Your task to perform on an android device: create a new album in the google photos Image 0: 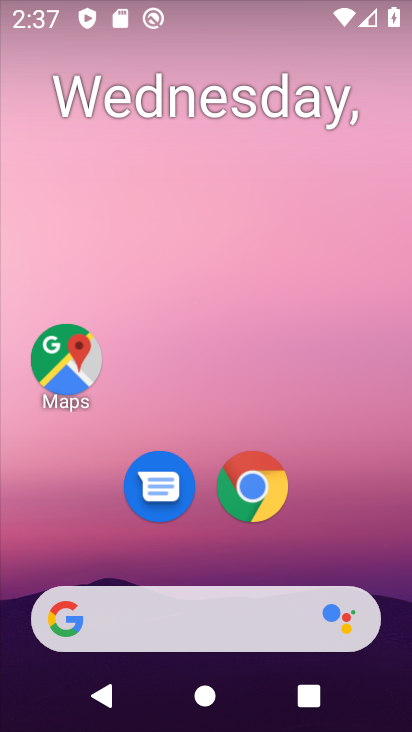
Step 0: drag from (217, 594) to (150, 66)
Your task to perform on an android device: create a new album in the google photos Image 1: 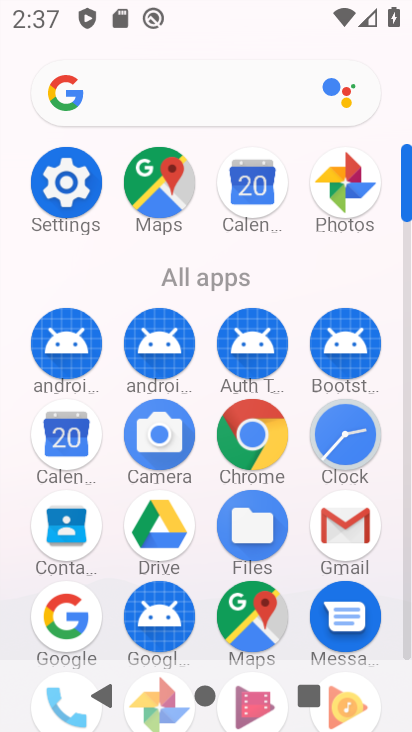
Step 1: drag from (209, 649) to (209, 153)
Your task to perform on an android device: create a new album in the google photos Image 2: 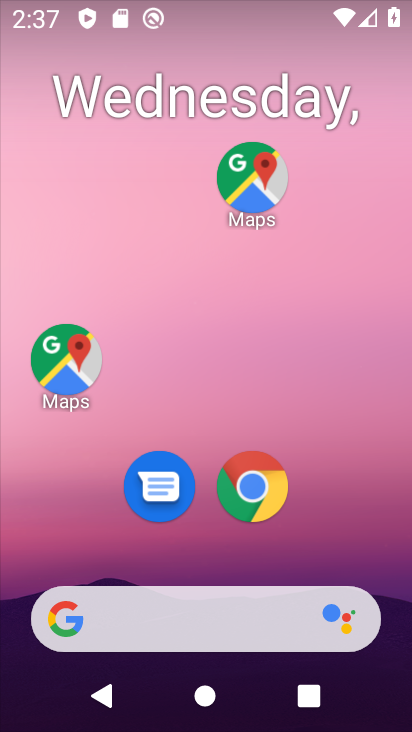
Step 2: drag from (211, 567) to (187, 18)
Your task to perform on an android device: create a new album in the google photos Image 3: 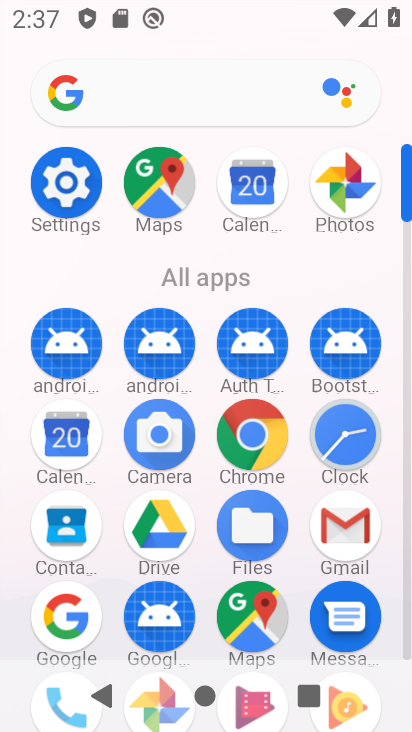
Step 3: click (337, 178)
Your task to perform on an android device: create a new album in the google photos Image 4: 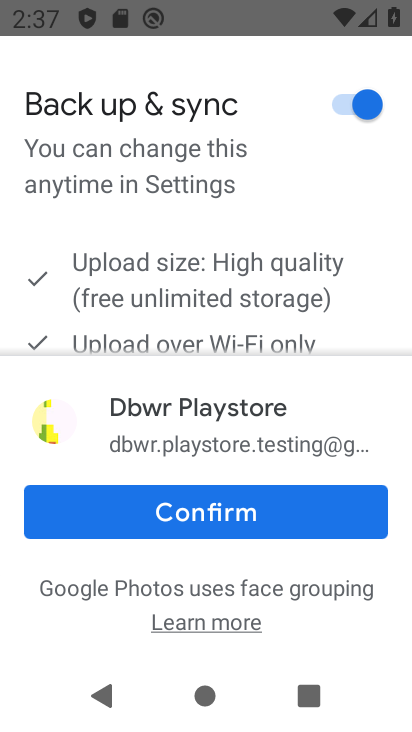
Step 4: click (337, 178)
Your task to perform on an android device: create a new album in the google photos Image 5: 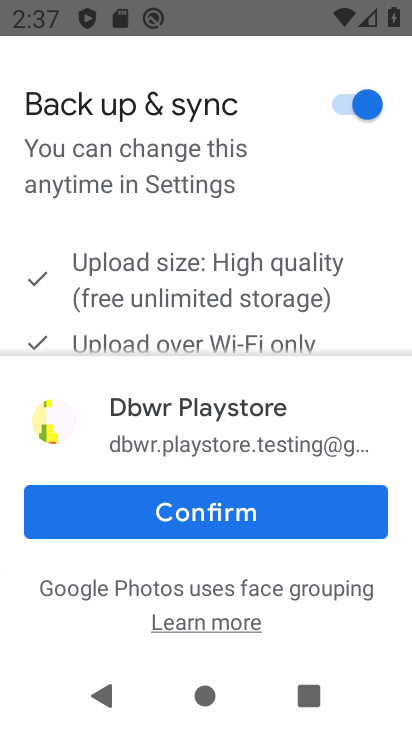
Step 5: click (231, 496)
Your task to perform on an android device: create a new album in the google photos Image 6: 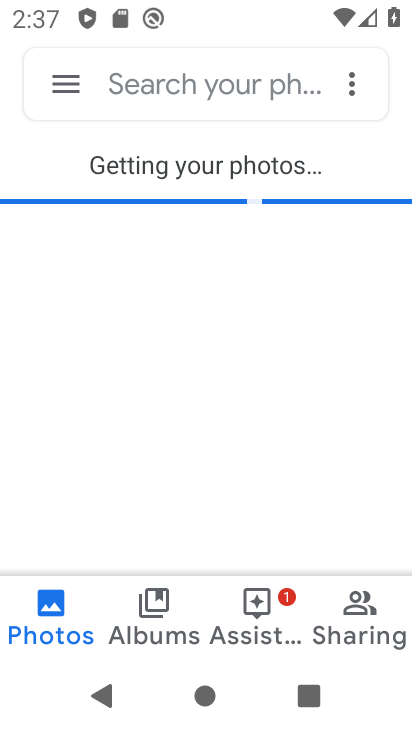
Step 6: click (169, 576)
Your task to perform on an android device: create a new album in the google photos Image 7: 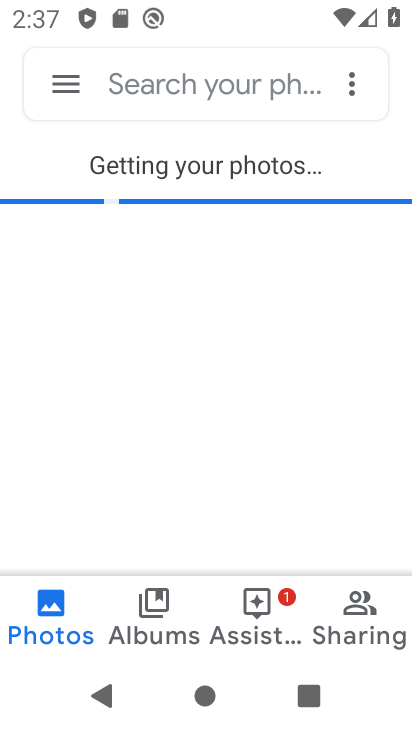
Step 7: click (166, 617)
Your task to perform on an android device: create a new album in the google photos Image 8: 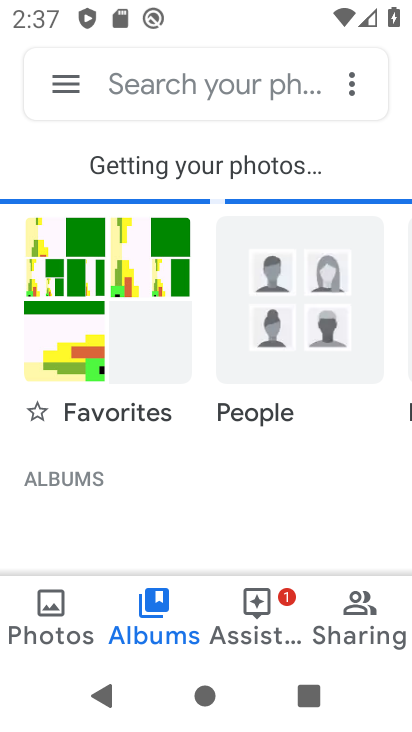
Step 8: click (250, 601)
Your task to perform on an android device: create a new album in the google photos Image 9: 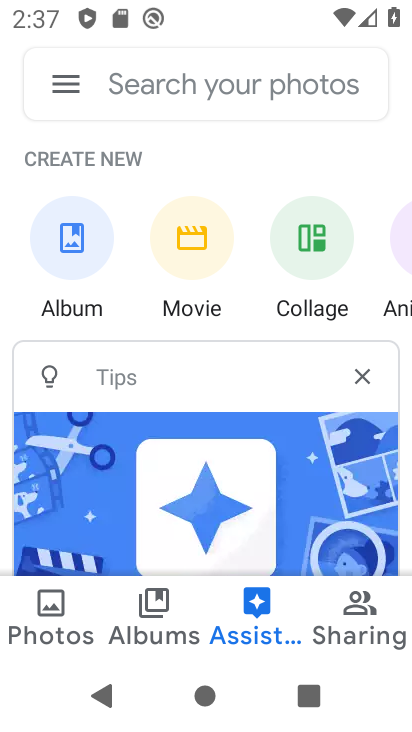
Step 9: click (32, 613)
Your task to perform on an android device: create a new album in the google photos Image 10: 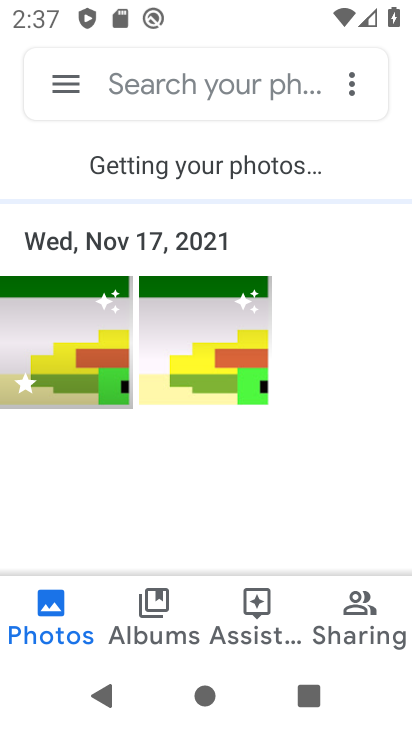
Step 10: click (76, 359)
Your task to perform on an android device: create a new album in the google photos Image 11: 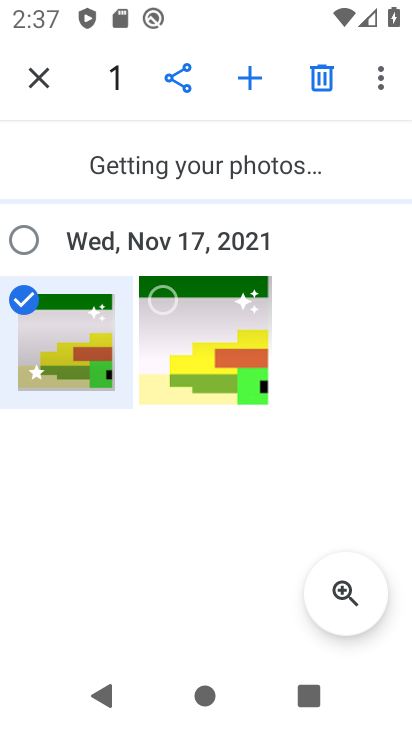
Step 11: click (248, 74)
Your task to perform on an android device: create a new album in the google photos Image 12: 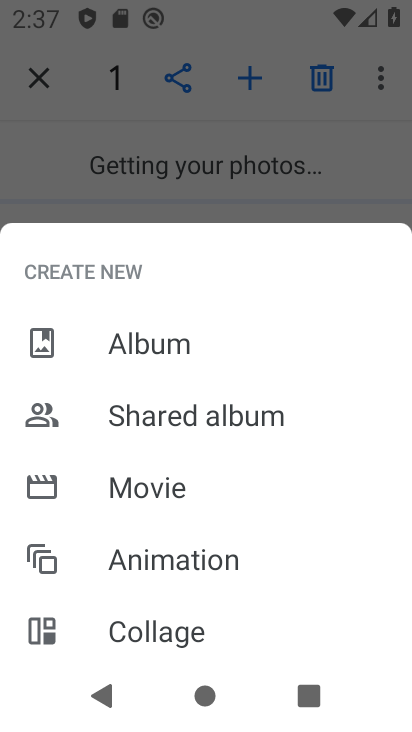
Step 12: click (222, 340)
Your task to perform on an android device: create a new album in the google photos Image 13: 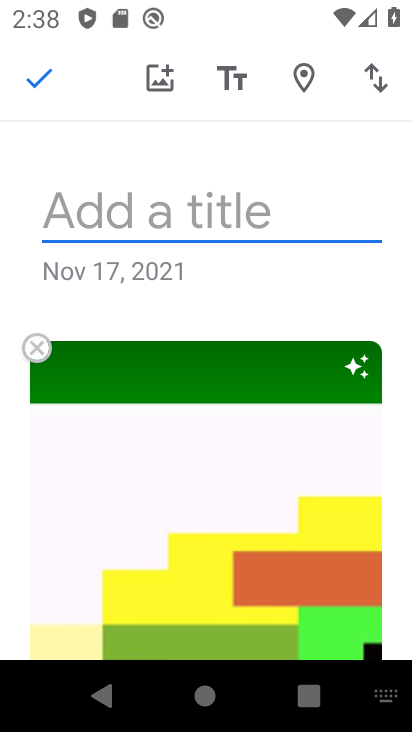
Step 13: type "g"
Your task to perform on an android device: create a new album in the google photos Image 14: 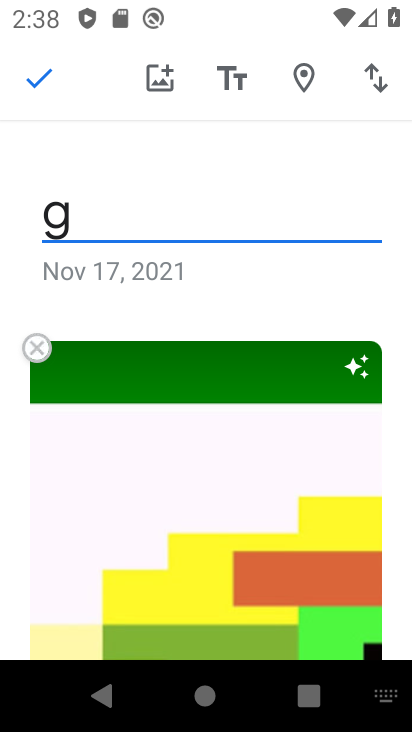
Step 14: click (46, 78)
Your task to perform on an android device: create a new album in the google photos Image 15: 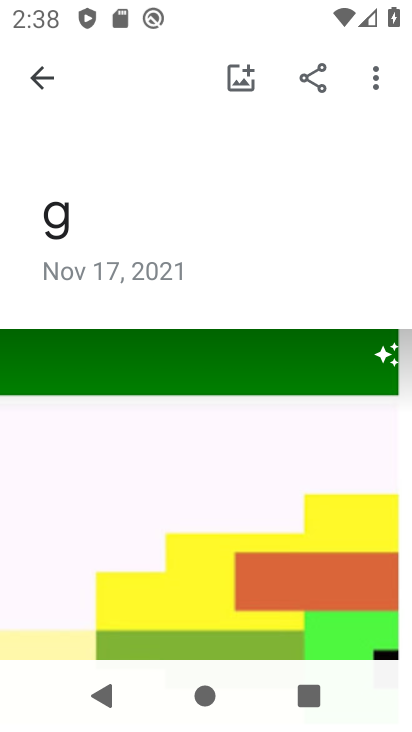
Step 15: task complete